Your task to perform on an android device: Open the calendar app, open the side menu, and click the "Day" option Image 0: 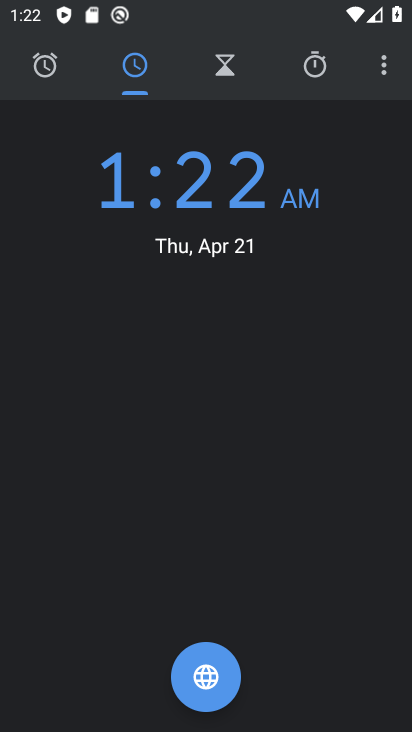
Step 0: press home button
Your task to perform on an android device: Open the calendar app, open the side menu, and click the "Day" option Image 1: 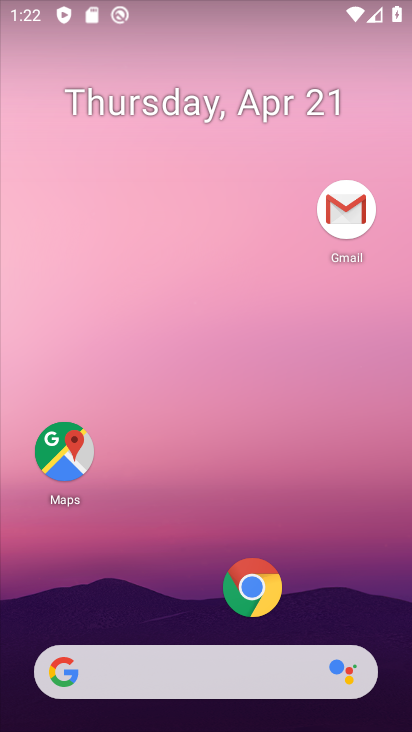
Step 1: drag from (321, 643) to (254, 146)
Your task to perform on an android device: Open the calendar app, open the side menu, and click the "Day" option Image 2: 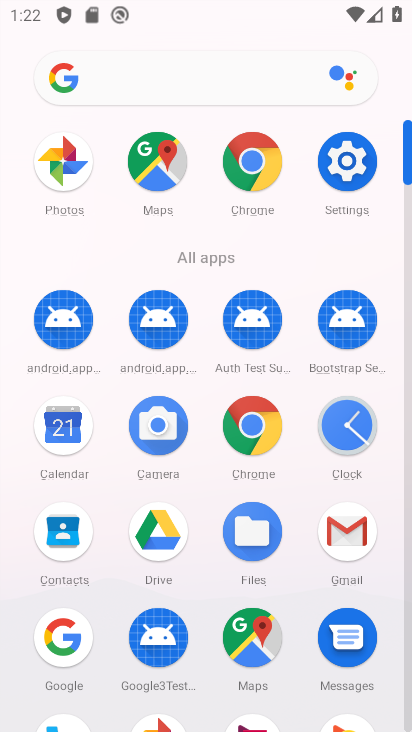
Step 2: click (67, 418)
Your task to perform on an android device: Open the calendar app, open the side menu, and click the "Day" option Image 3: 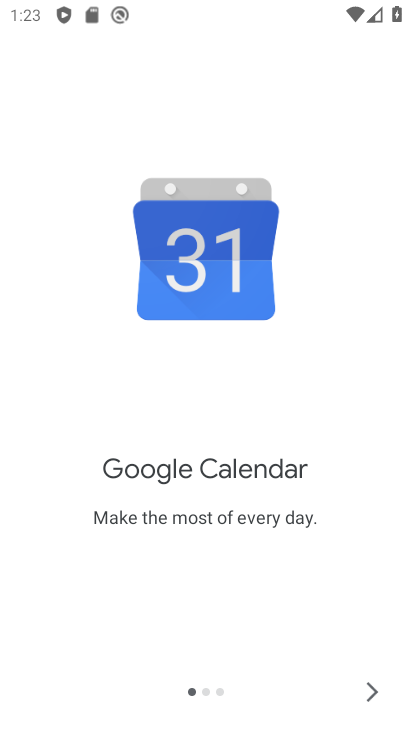
Step 3: click (371, 688)
Your task to perform on an android device: Open the calendar app, open the side menu, and click the "Day" option Image 4: 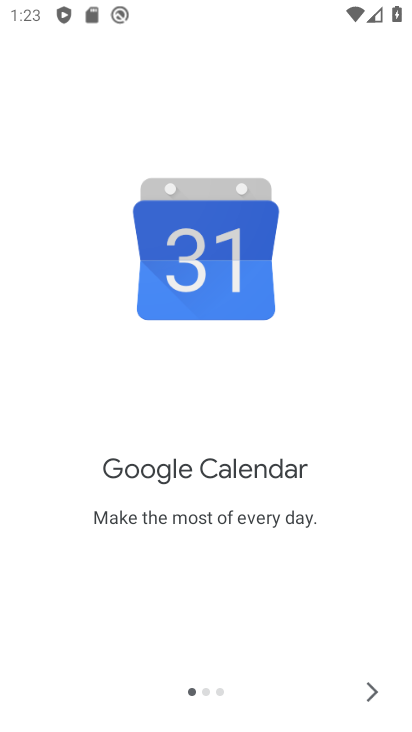
Step 4: click (371, 688)
Your task to perform on an android device: Open the calendar app, open the side menu, and click the "Day" option Image 5: 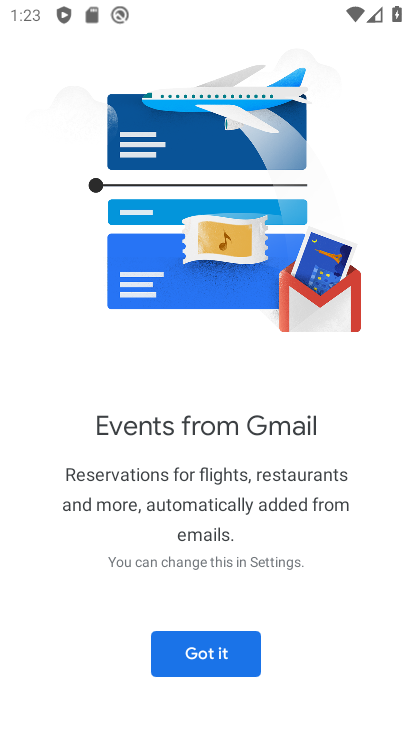
Step 5: click (371, 687)
Your task to perform on an android device: Open the calendar app, open the side menu, and click the "Day" option Image 6: 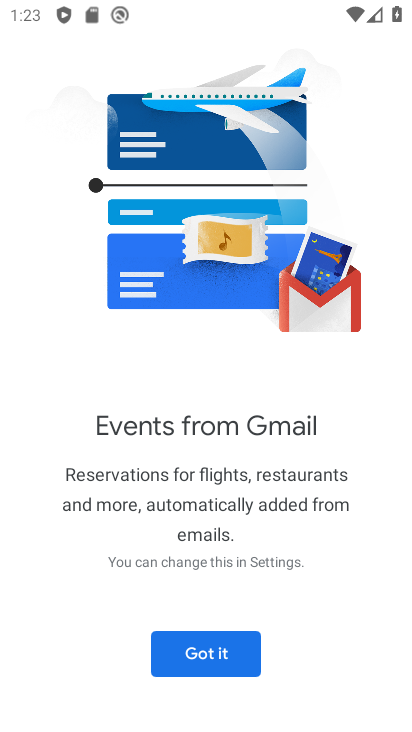
Step 6: click (227, 651)
Your task to perform on an android device: Open the calendar app, open the side menu, and click the "Day" option Image 7: 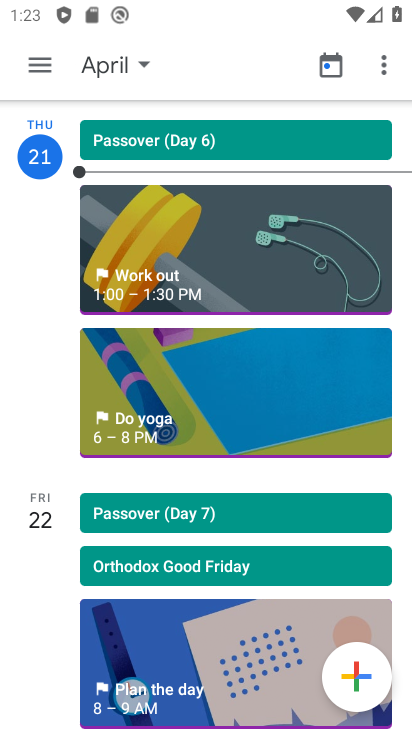
Step 7: click (39, 63)
Your task to perform on an android device: Open the calendar app, open the side menu, and click the "Day" option Image 8: 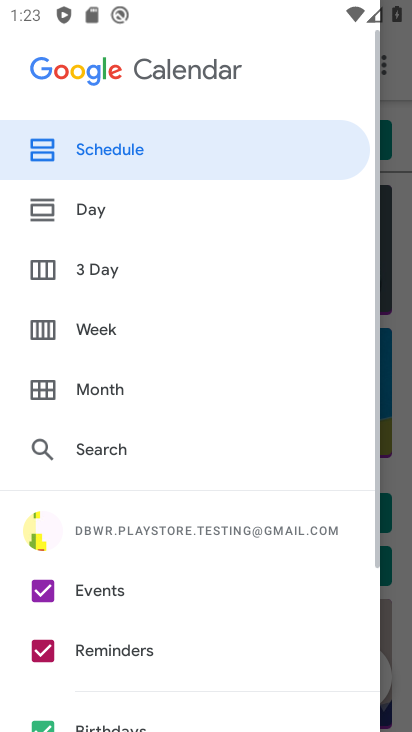
Step 8: click (72, 204)
Your task to perform on an android device: Open the calendar app, open the side menu, and click the "Day" option Image 9: 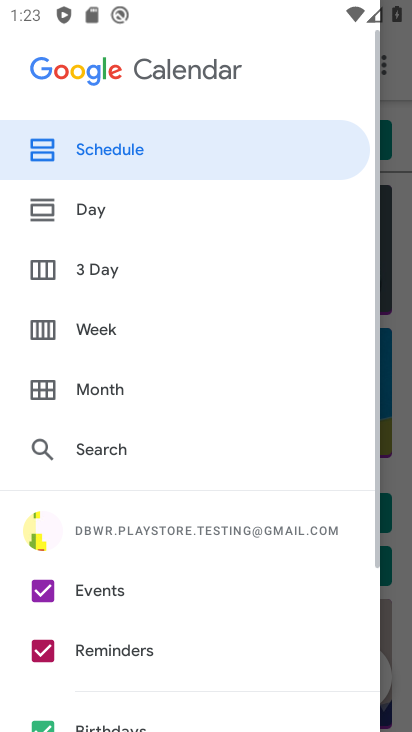
Step 9: click (86, 205)
Your task to perform on an android device: Open the calendar app, open the side menu, and click the "Day" option Image 10: 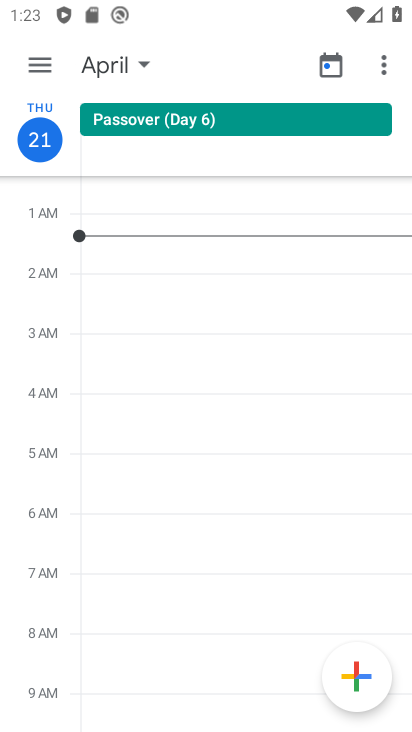
Step 10: task complete